Your task to perform on an android device: Open Wikipedia Image 0: 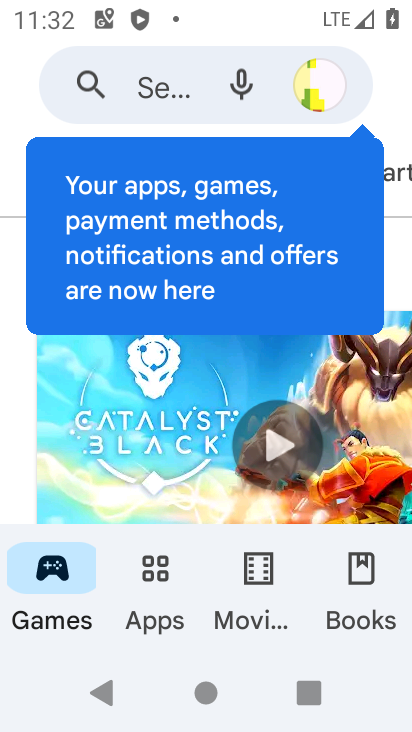
Step 0: press home button
Your task to perform on an android device: Open Wikipedia Image 1: 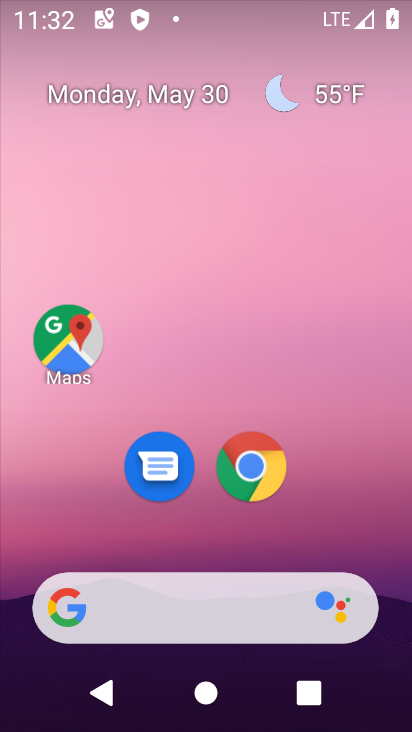
Step 1: click (267, 472)
Your task to perform on an android device: Open Wikipedia Image 2: 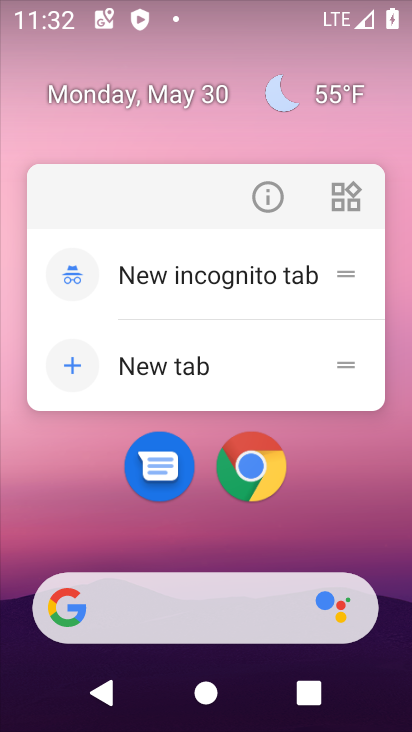
Step 2: click (267, 472)
Your task to perform on an android device: Open Wikipedia Image 3: 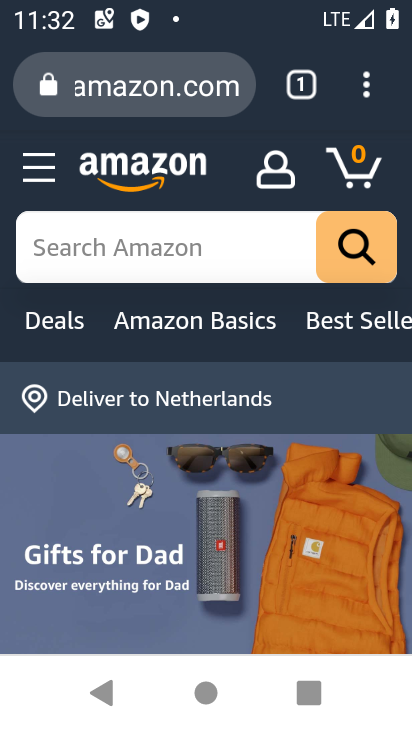
Step 3: click (304, 91)
Your task to perform on an android device: Open Wikipedia Image 4: 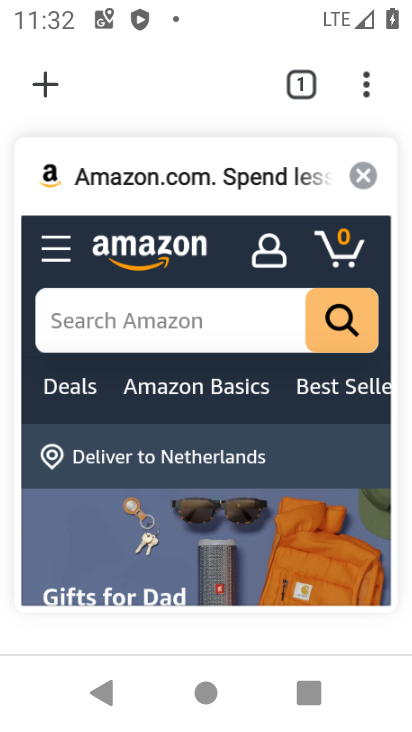
Step 4: click (366, 179)
Your task to perform on an android device: Open Wikipedia Image 5: 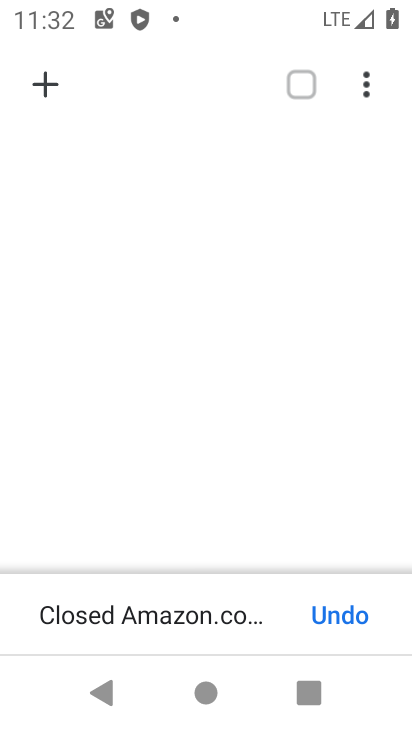
Step 5: click (51, 83)
Your task to perform on an android device: Open Wikipedia Image 6: 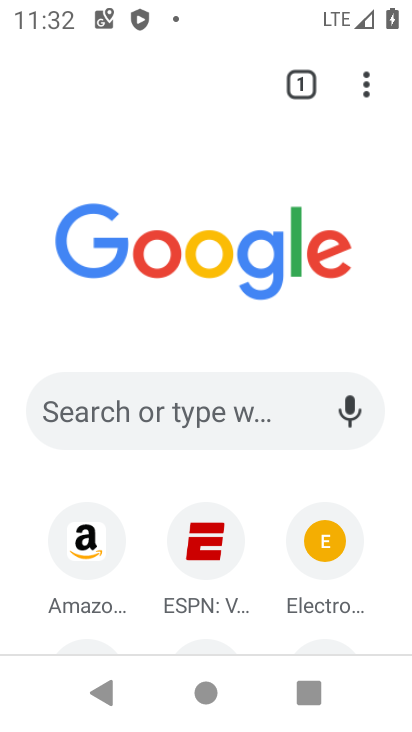
Step 6: drag from (192, 488) to (216, 213)
Your task to perform on an android device: Open Wikipedia Image 7: 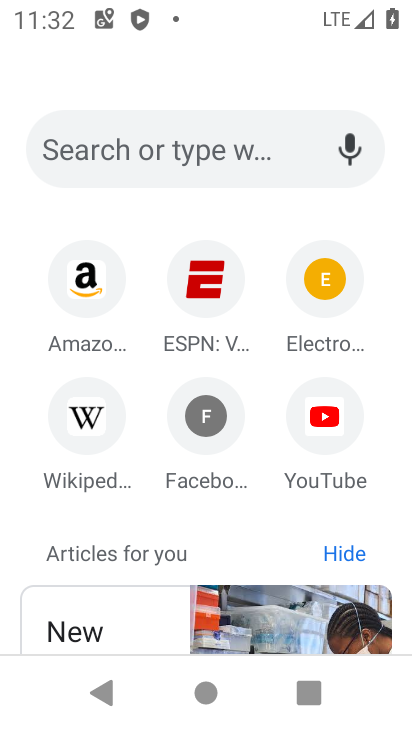
Step 7: click (82, 416)
Your task to perform on an android device: Open Wikipedia Image 8: 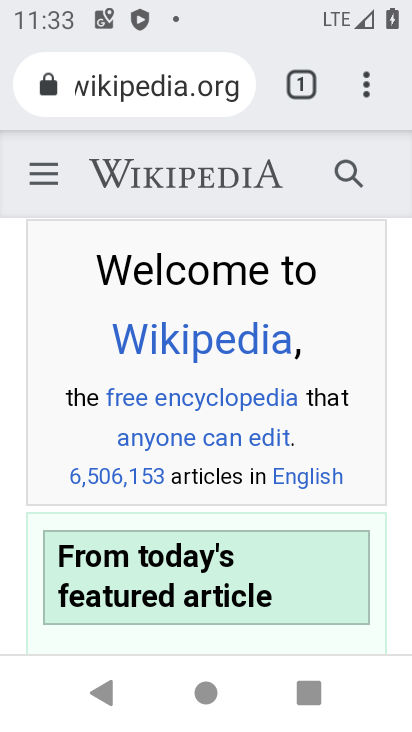
Step 8: task complete